Your task to perform on an android device: Open Android settings Image 0: 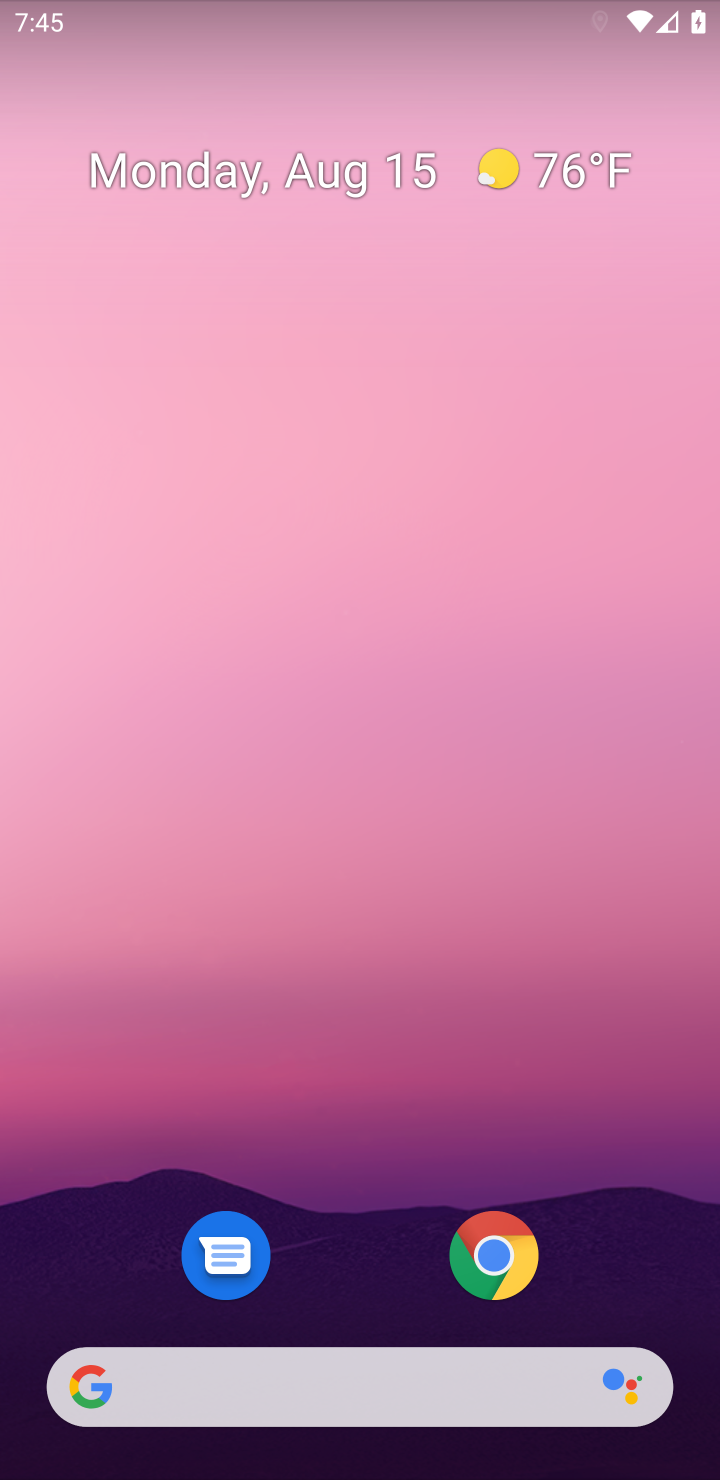
Step 0: press home button
Your task to perform on an android device: Open Android settings Image 1: 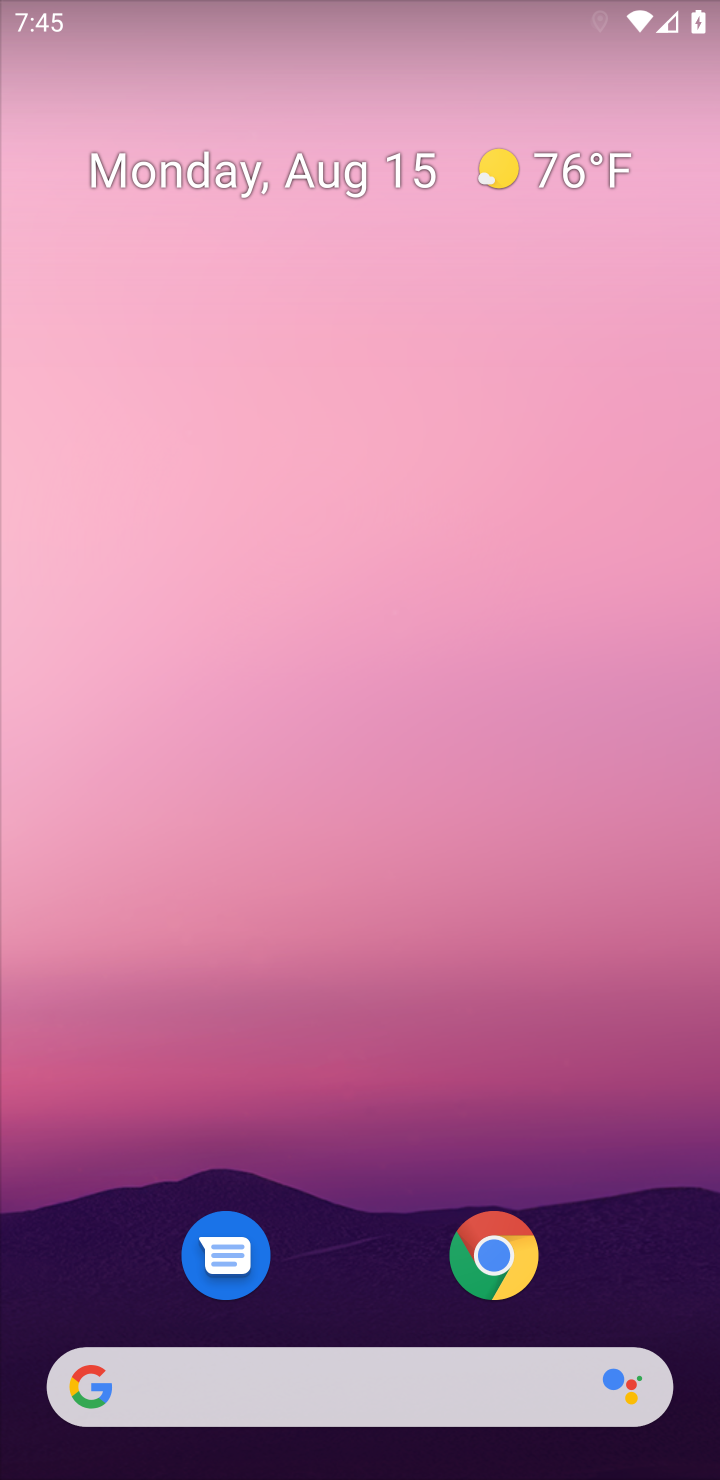
Step 1: drag from (354, 1260) to (297, 250)
Your task to perform on an android device: Open Android settings Image 2: 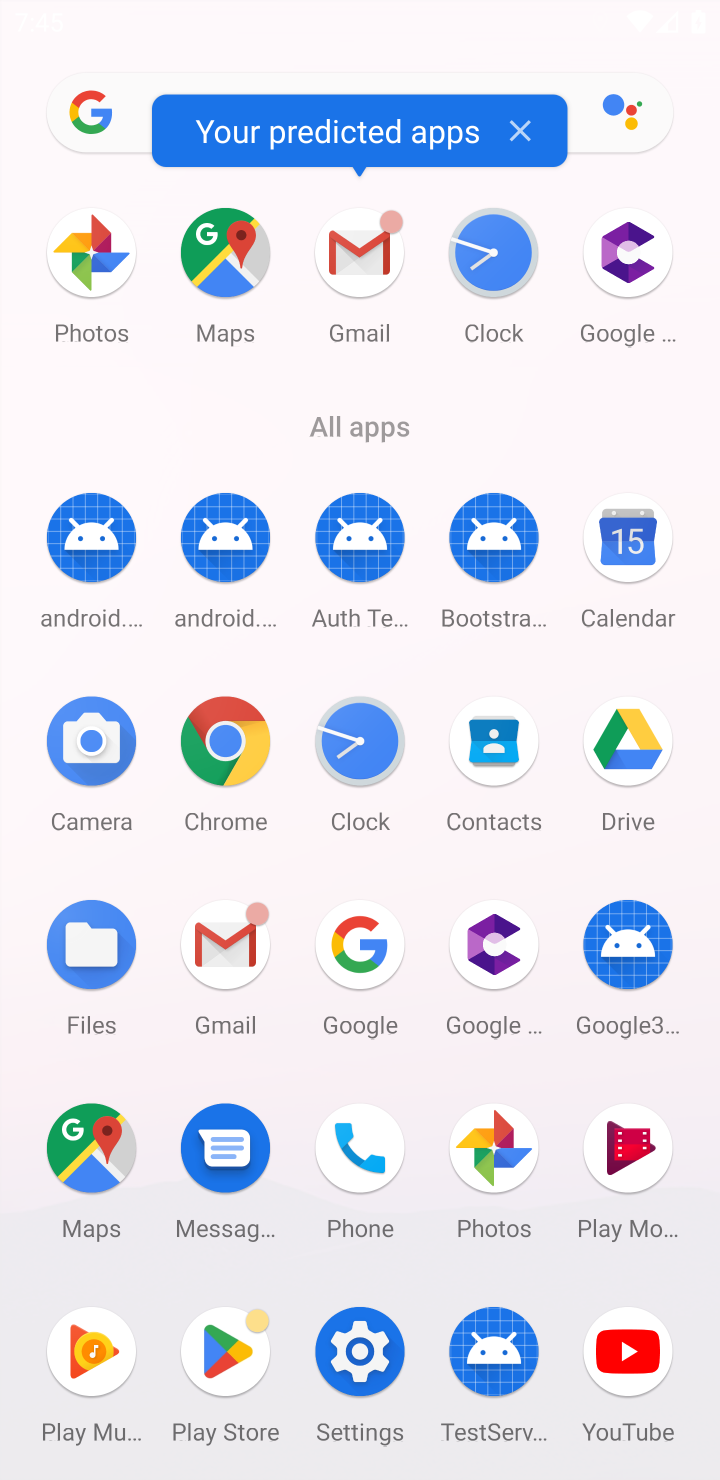
Step 2: click (363, 1350)
Your task to perform on an android device: Open Android settings Image 3: 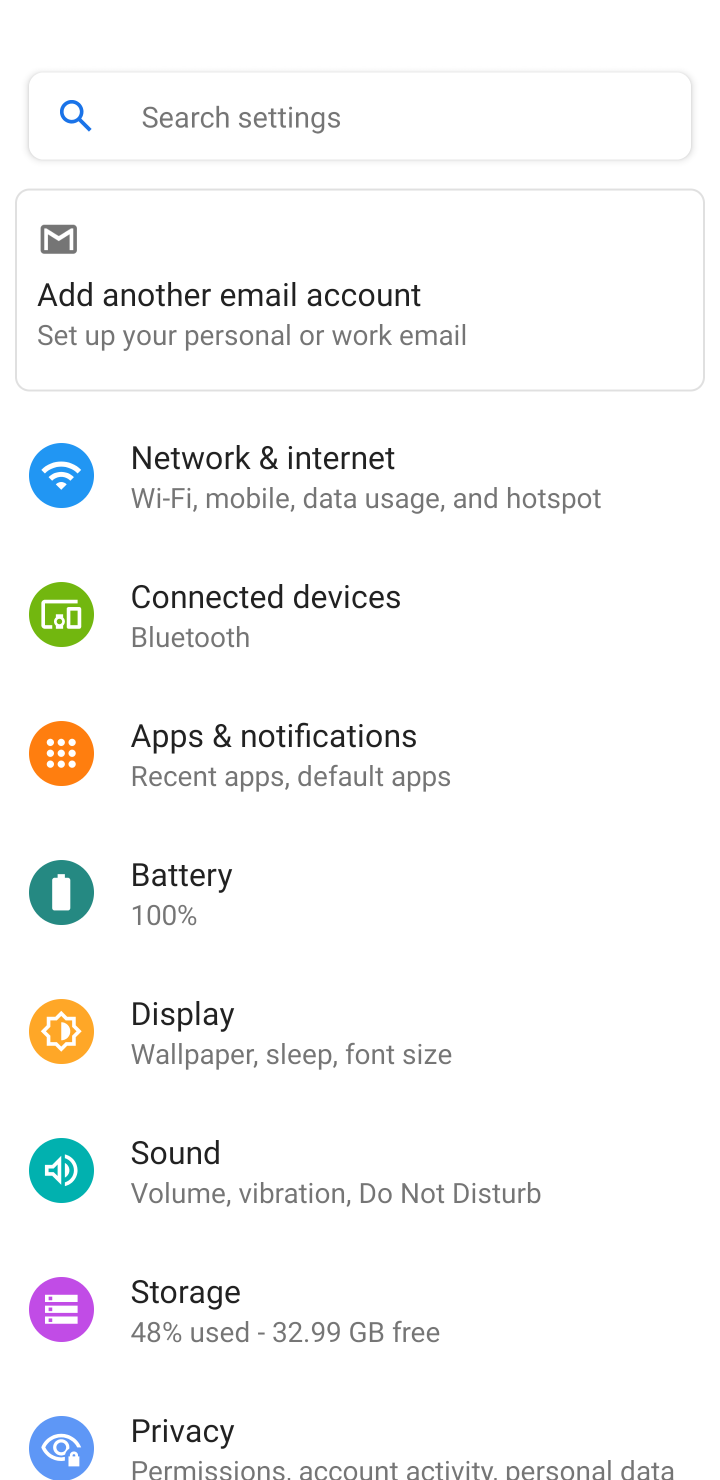
Step 3: drag from (331, 1397) to (291, 202)
Your task to perform on an android device: Open Android settings Image 4: 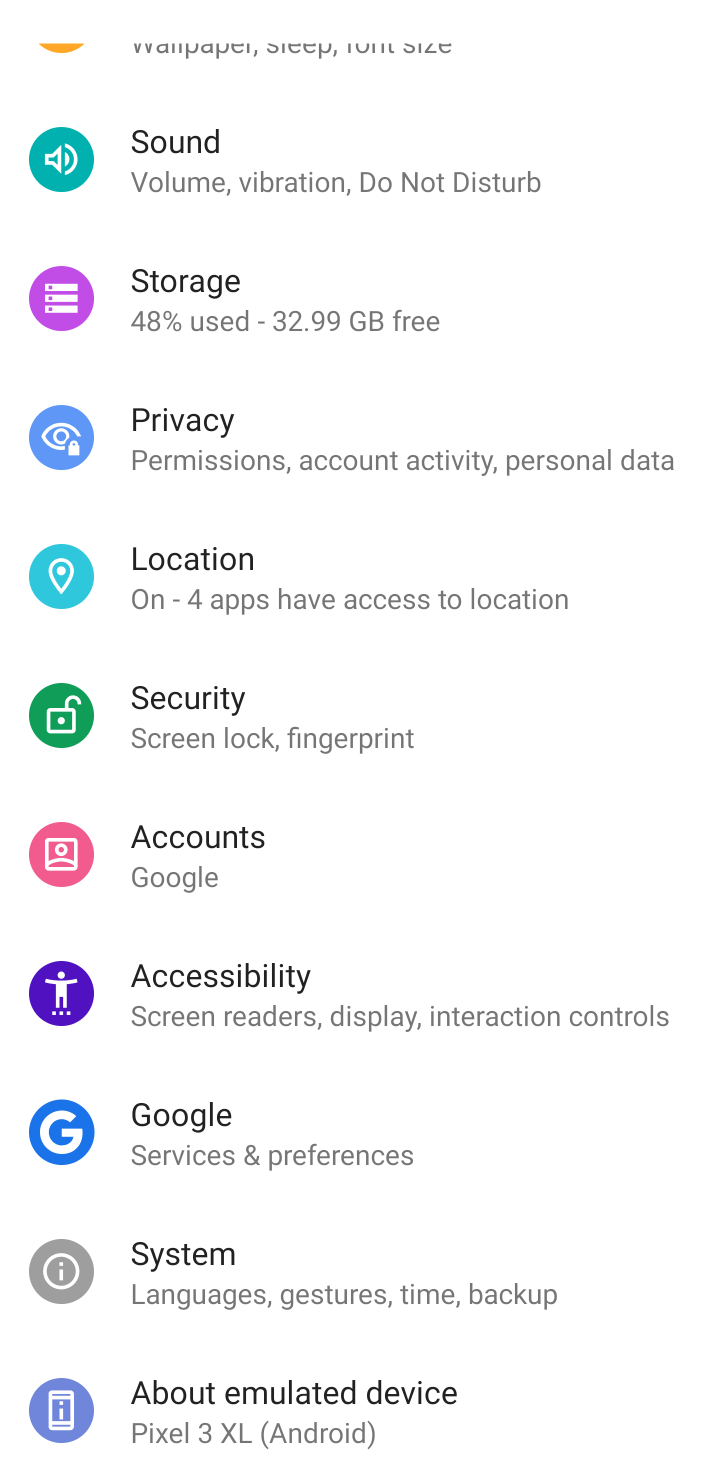
Step 4: click (399, 1407)
Your task to perform on an android device: Open Android settings Image 5: 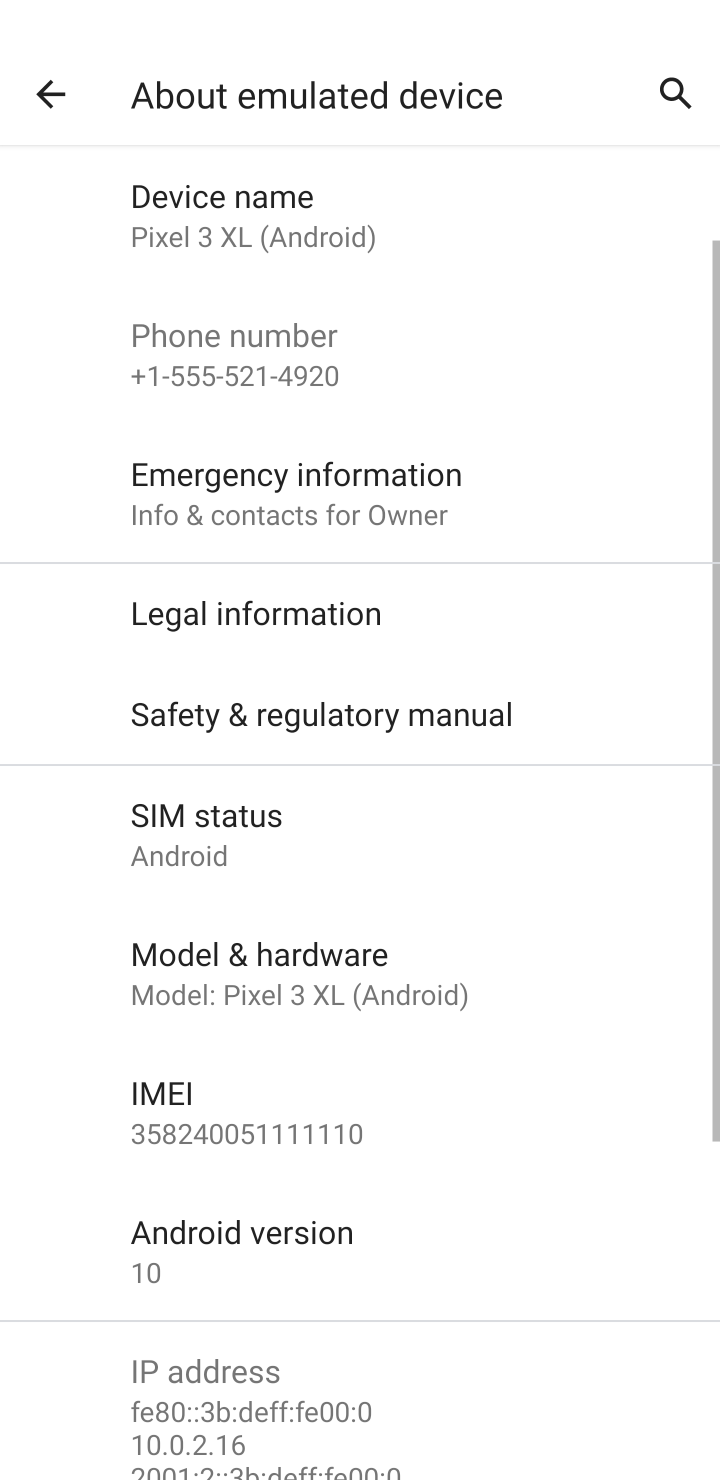
Step 5: click (234, 1265)
Your task to perform on an android device: Open Android settings Image 6: 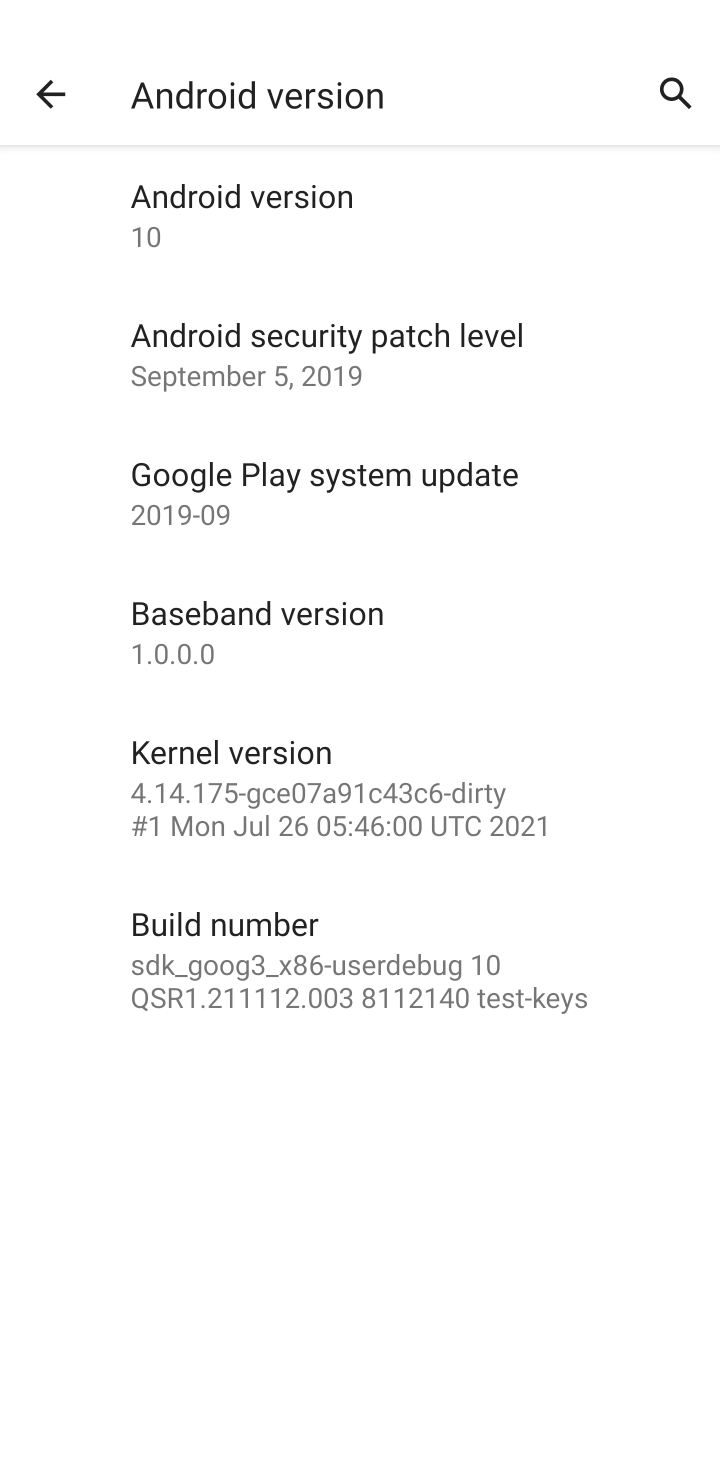
Step 6: click (272, 225)
Your task to perform on an android device: Open Android settings Image 7: 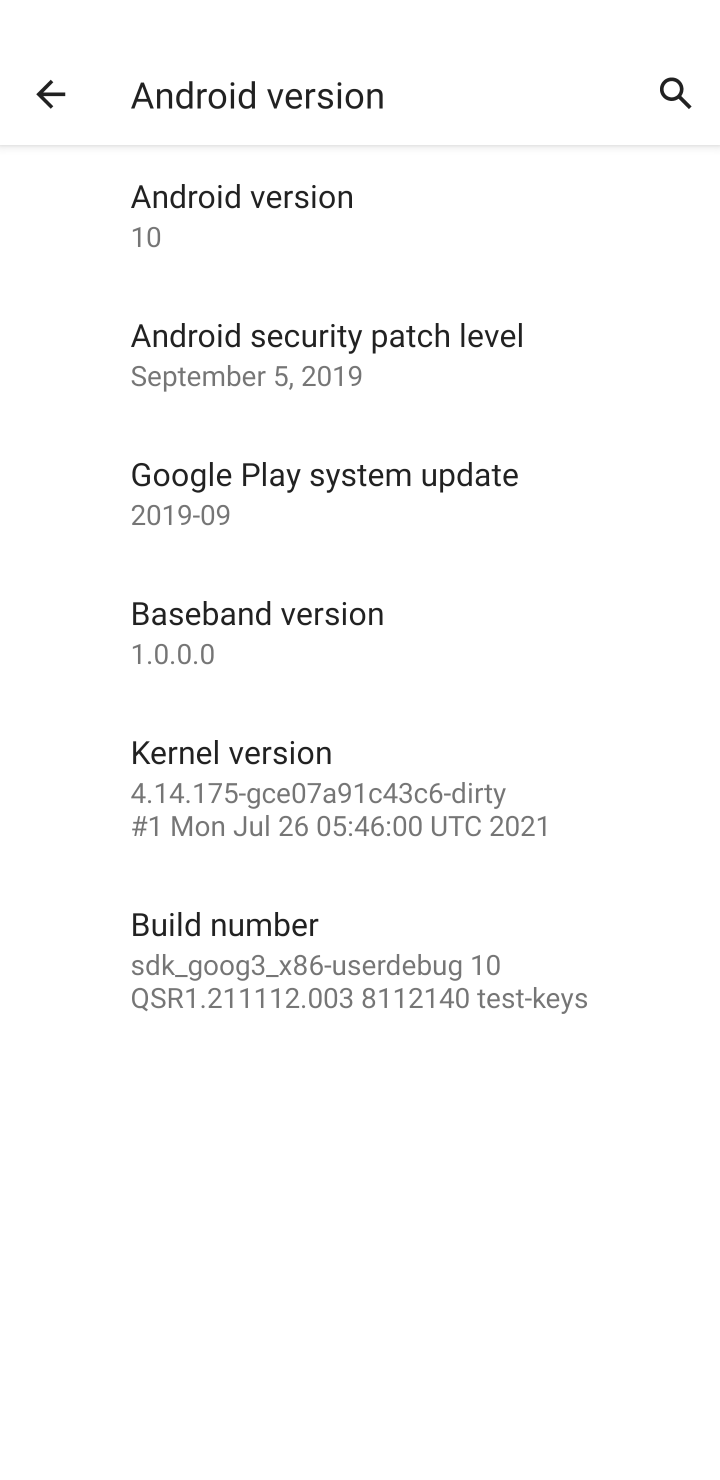
Step 7: task complete